Your task to perform on an android device: Open the map Image 0: 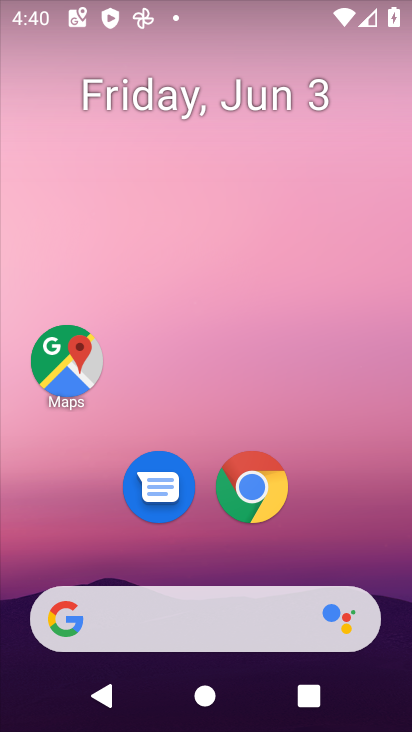
Step 0: click (316, 53)
Your task to perform on an android device: Open the map Image 1: 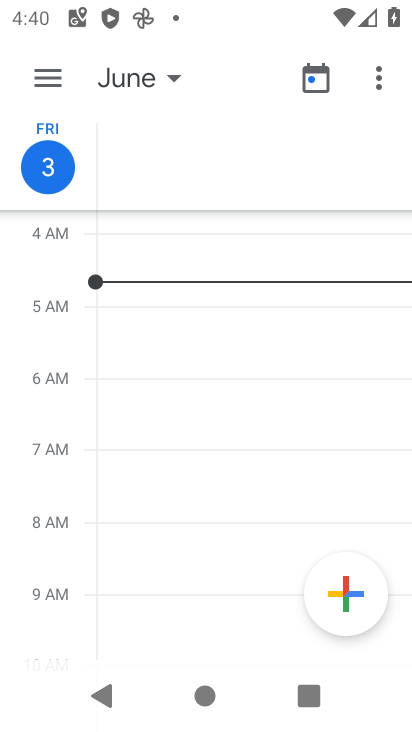
Step 1: drag from (218, 564) to (221, 120)
Your task to perform on an android device: Open the map Image 2: 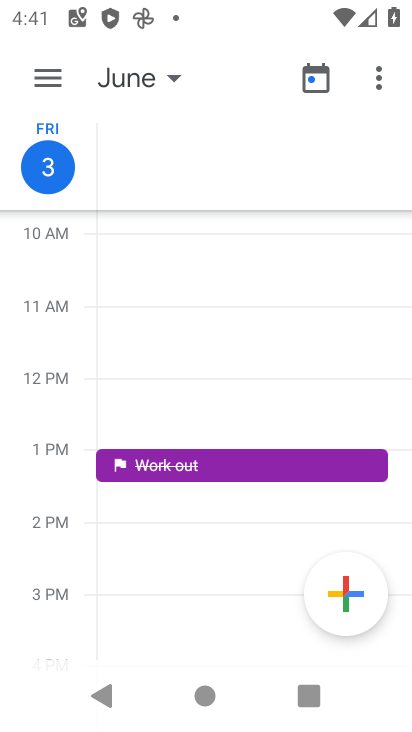
Step 2: press home button
Your task to perform on an android device: Open the map Image 3: 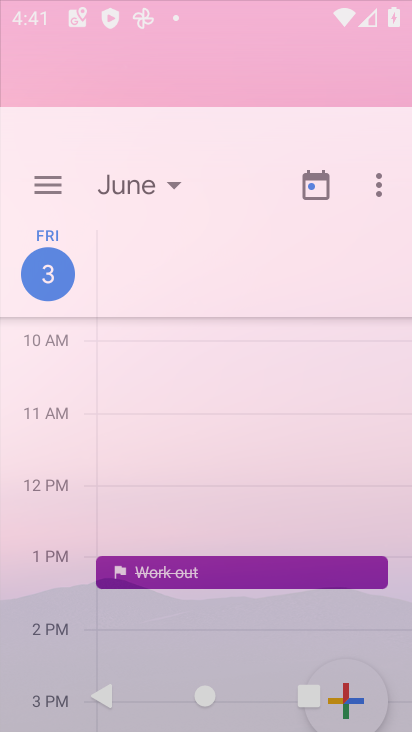
Step 3: drag from (226, 504) to (224, 5)
Your task to perform on an android device: Open the map Image 4: 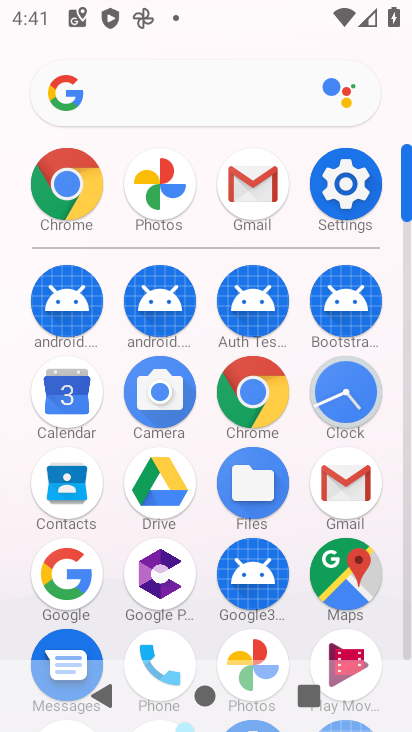
Step 4: click (359, 573)
Your task to perform on an android device: Open the map Image 5: 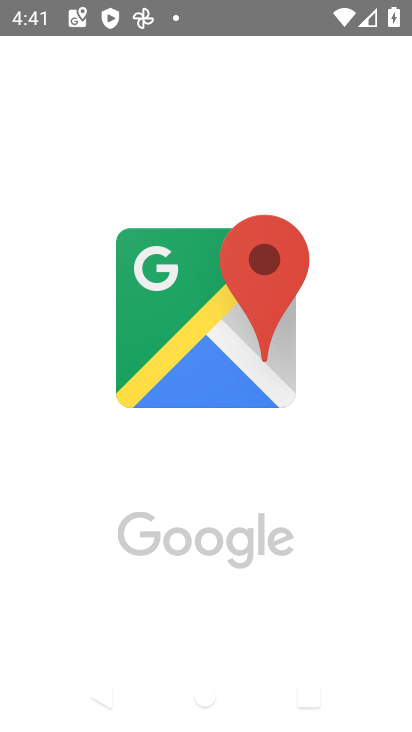
Step 5: task complete